Your task to perform on an android device: delete the emails in spam in the gmail app Image 0: 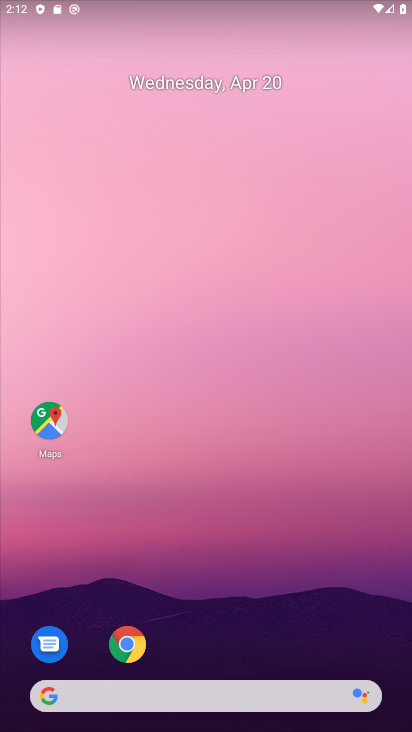
Step 0: drag from (352, 657) to (285, 140)
Your task to perform on an android device: delete the emails in spam in the gmail app Image 1: 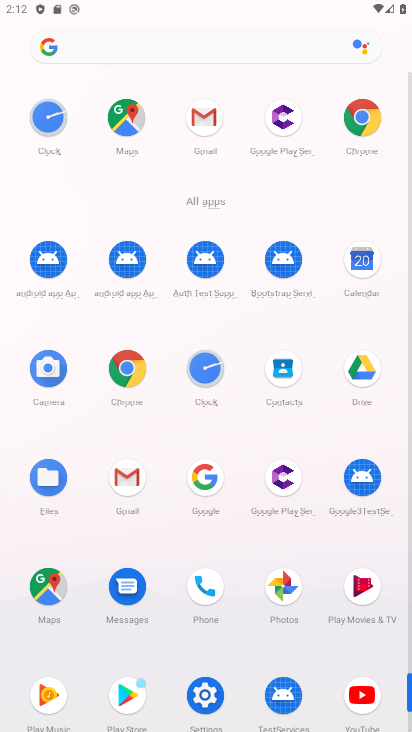
Step 1: click (410, 655)
Your task to perform on an android device: delete the emails in spam in the gmail app Image 2: 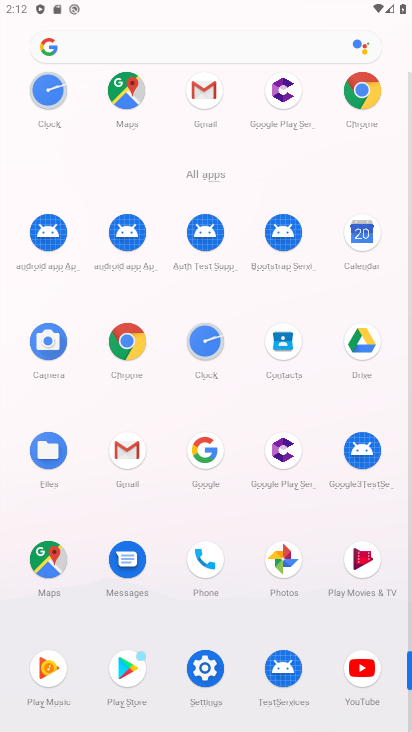
Step 2: click (128, 446)
Your task to perform on an android device: delete the emails in spam in the gmail app Image 3: 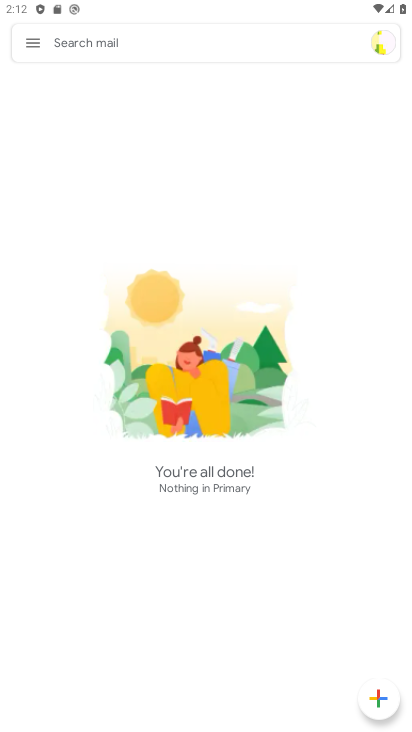
Step 3: click (29, 44)
Your task to perform on an android device: delete the emails in spam in the gmail app Image 4: 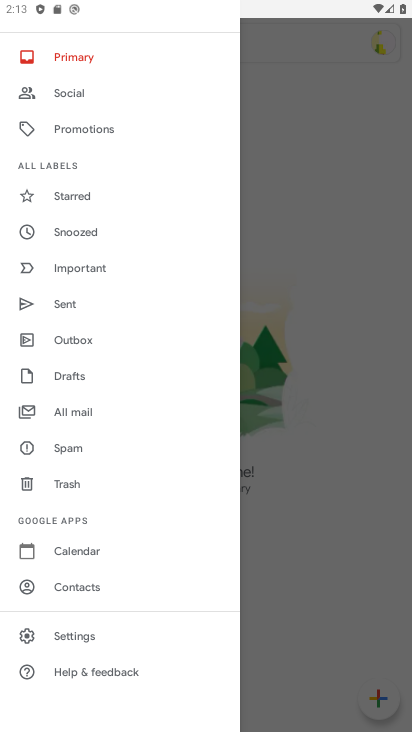
Step 4: click (79, 445)
Your task to perform on an android device: delete the emails in spam in the gmail app Image 5: 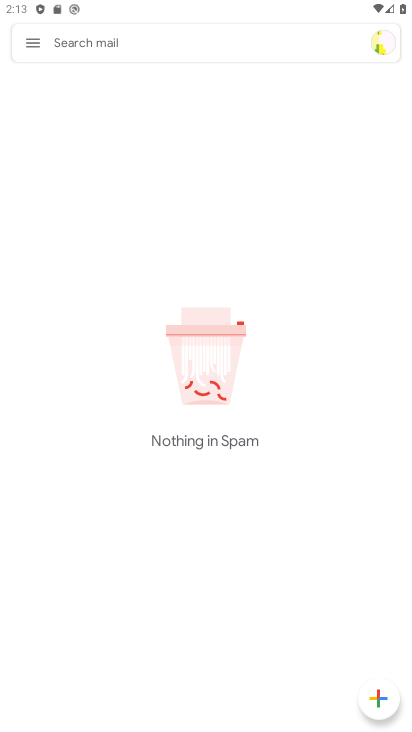
Step 5: task complete